Your task to perform on an android device: delete browsing data in the chrome app Image 0: 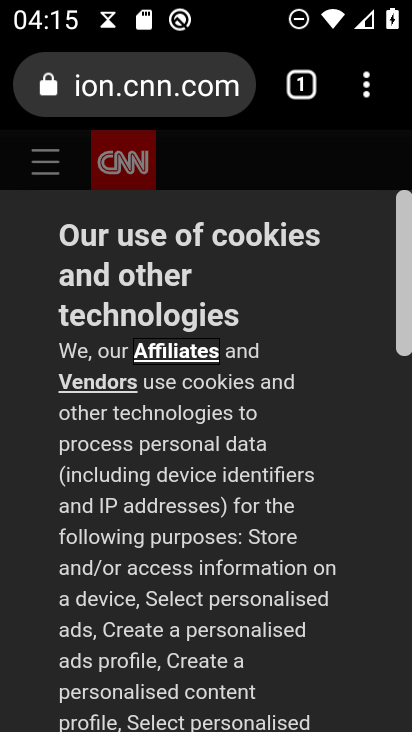
Step 0: press home button
Your task to perform on an android device: delete browsing data in the chrome app Image 1: 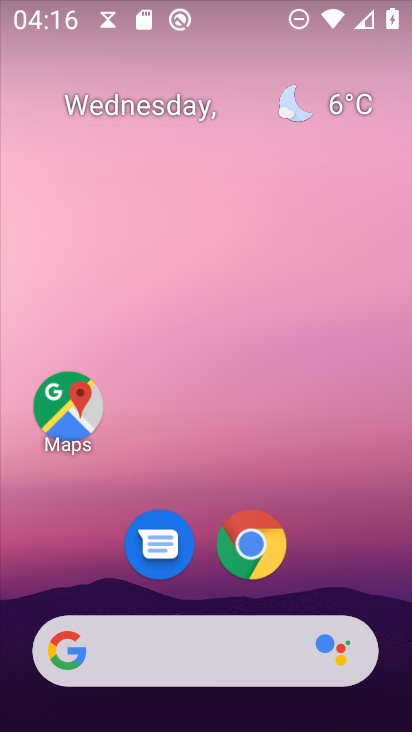
Step 1: click (245, 542)
Your task to perform on an android device: delete browsing data in the chrome app Image 2: 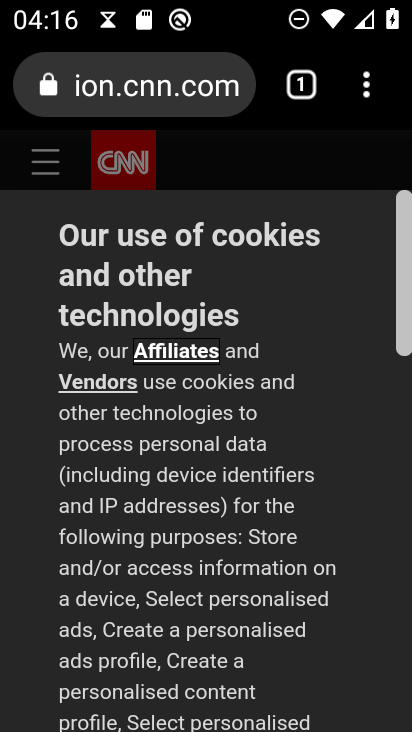
Step 2: press home button
Your task to perform on an android device: delete browsing data in the chrome app Image 3: 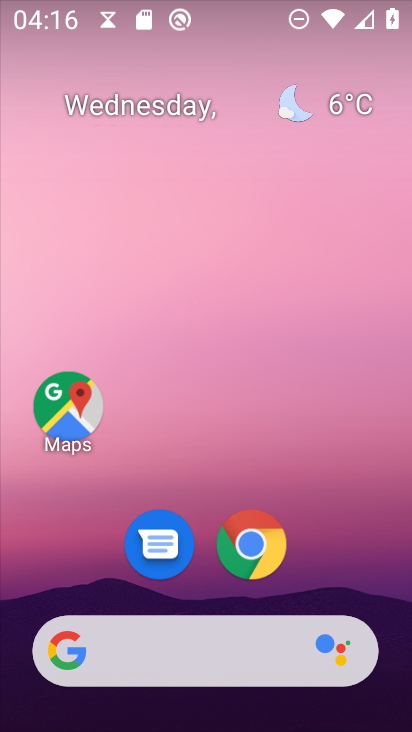
Step 3: click (244, 533)
Your task to perform on an android device: delete browsing data in the chrome app Image 4: 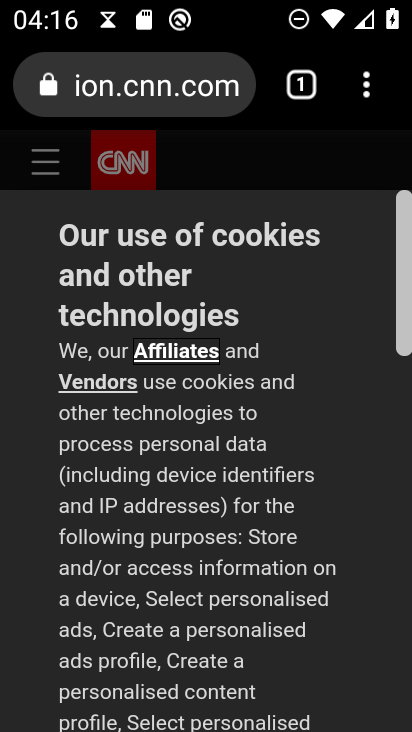
Step 4: click (379, 85)
Your task to perform on an android device: delete browsing data in the chrome app Image 5: 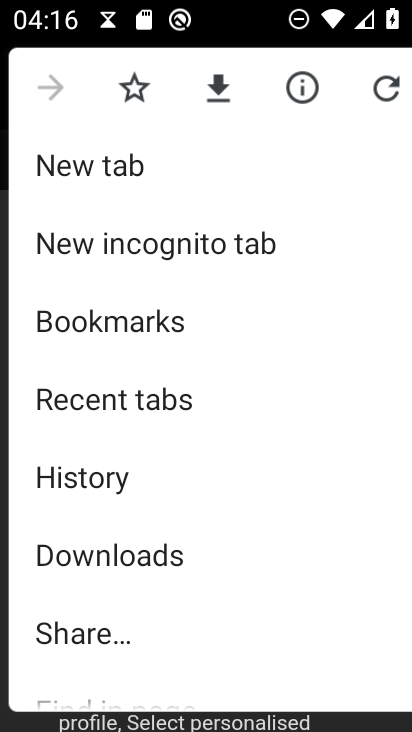
Step 5: drag from (156, 588) to (245, 304)
Your task to perform on an android device: delete browsing data in the chrome app Image 6: 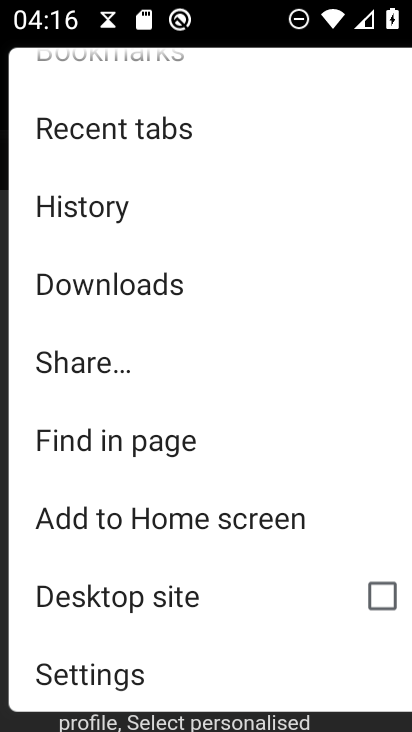
Step 6: click (169, 208)
Your task to perform on an android device: delete browsing data in the chrome app Image 7: 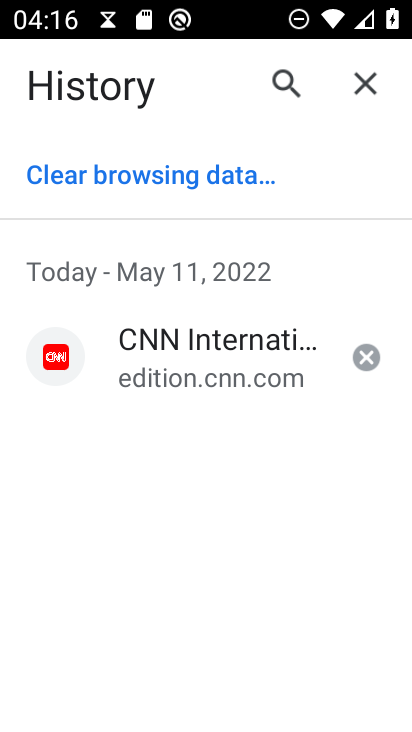
Step 7: click (157, 153)
Your task to perform on an android device: delete browsing data in the chrome app Image 8: 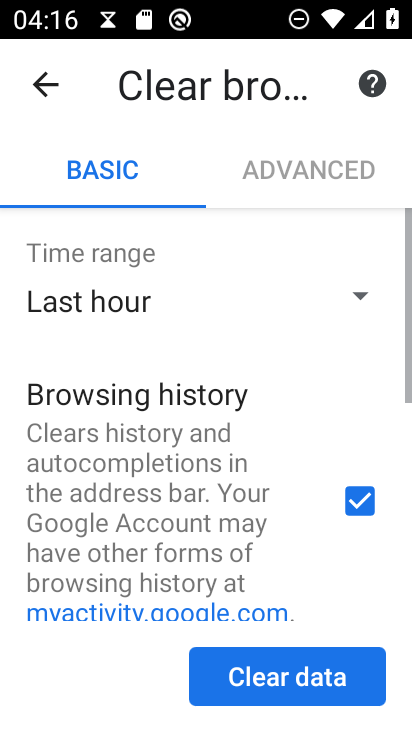
Step 8: click (245, 691)
Your task to perform on an android device: delete browsing data in the chrome app Image 9: 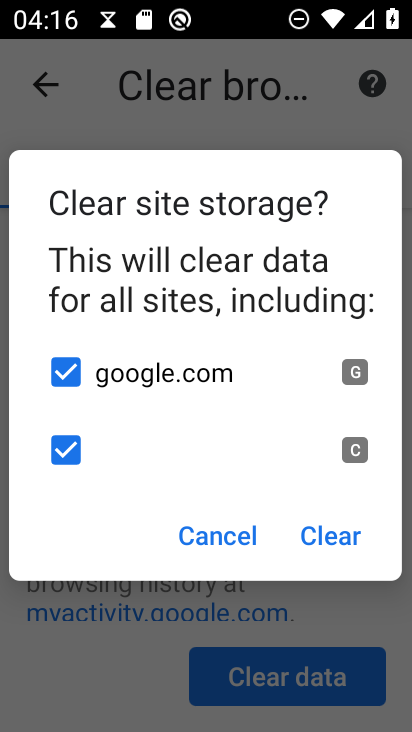
Step 9: click (326, 537)
Your task to perform on an android device: delete browsing data in the chrome app Image 10: 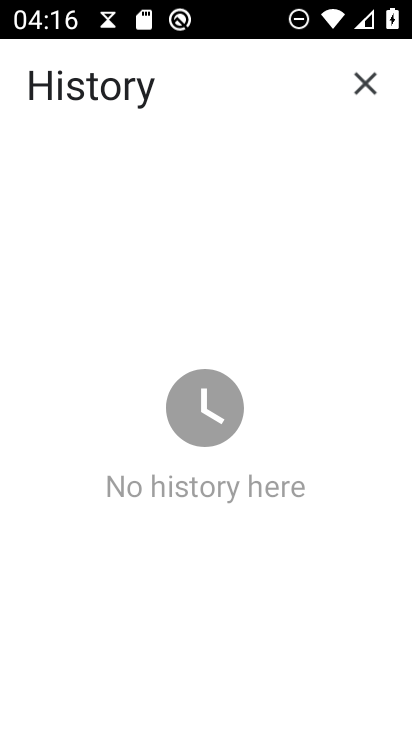
Step 10: task complete